Your task to perform on an android device: Open the calendar app, open the side menu, and click the "Day" option Image 0: 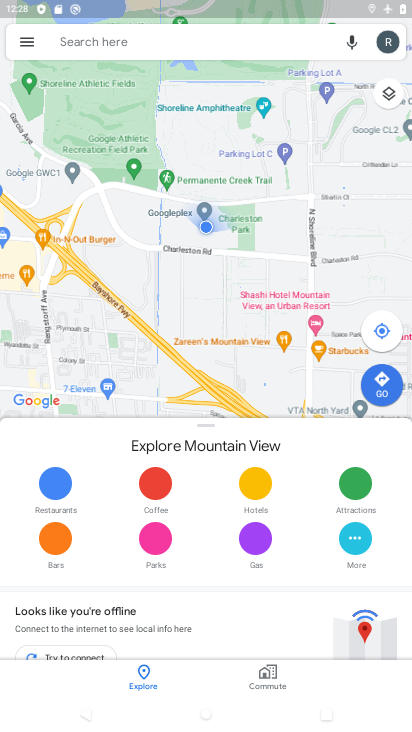
Step 0: press home button
Your task to perform on an android device: Open the calendar app, open the side menu, and click the "Day" option Image 1: 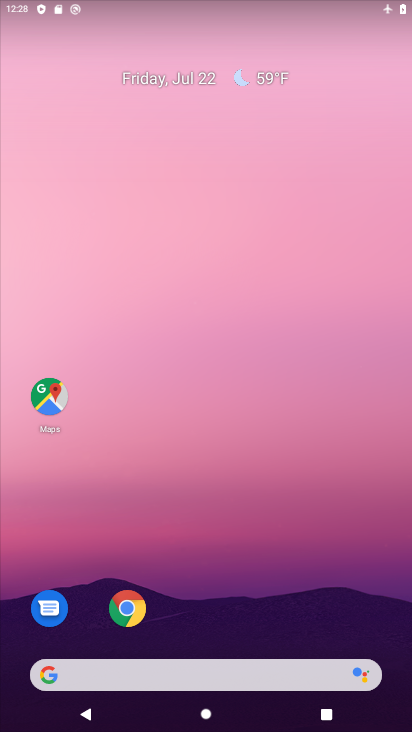
Step 1: drag from (195, 635) to (166, 37)
Your task to perform on an android device: Open the calendar app, open the side menu, and click the "Day" option Image 2: 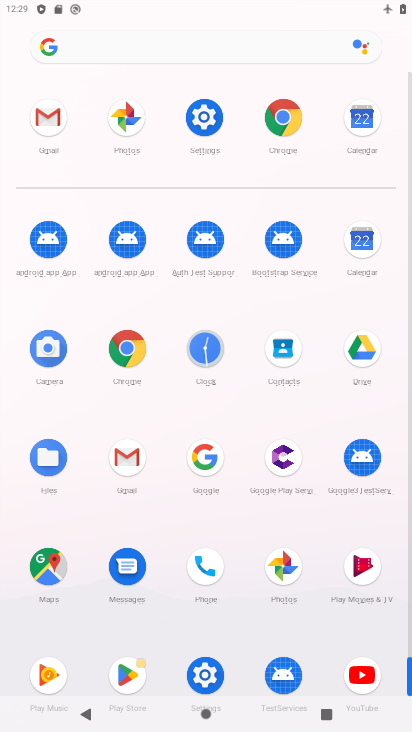
Step 2: click (354, 244)
Your task to perform on an android device: Open the calendar app, open the side menu, and click the "Day" option Image 3: 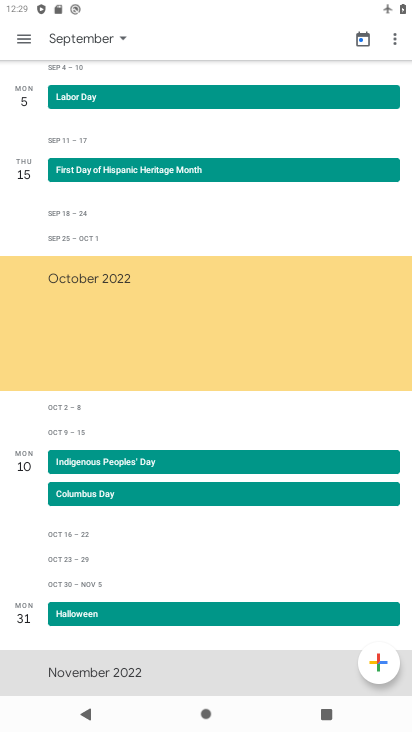
Step 3: click (26, 38)
Your task to perform on an android device: Open the calendar app, open the side menu, and click the "Day" option Image 4: 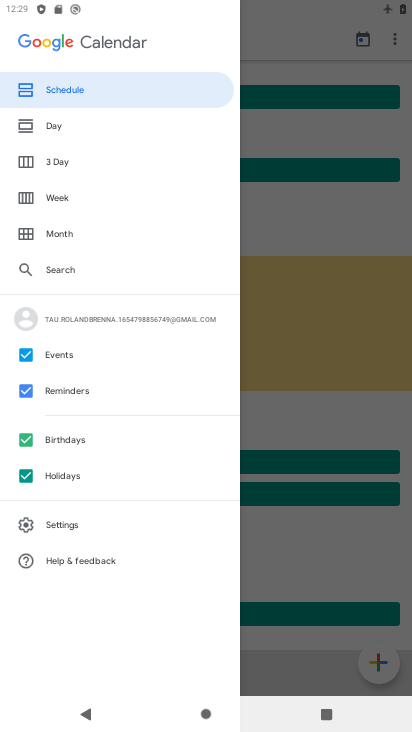
Step 4: click (53, 133)
Your task to perform on an android device: Open the calendar app, open the side menu, and click the "Day" option Image 5: 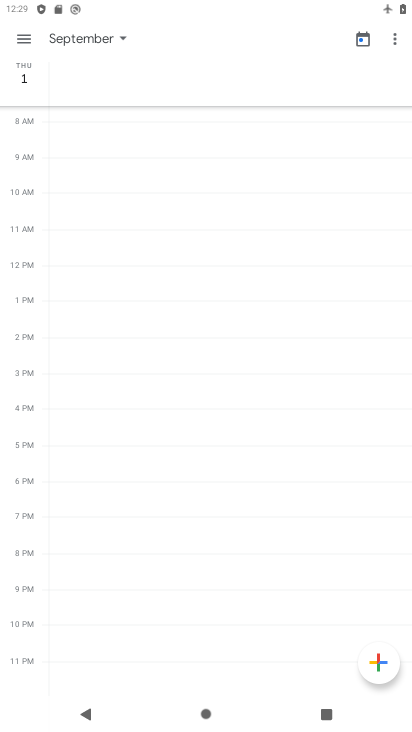
Step 5: task complete